Your task to perform on an android device: Show me the alarms in the clock app Image 0: 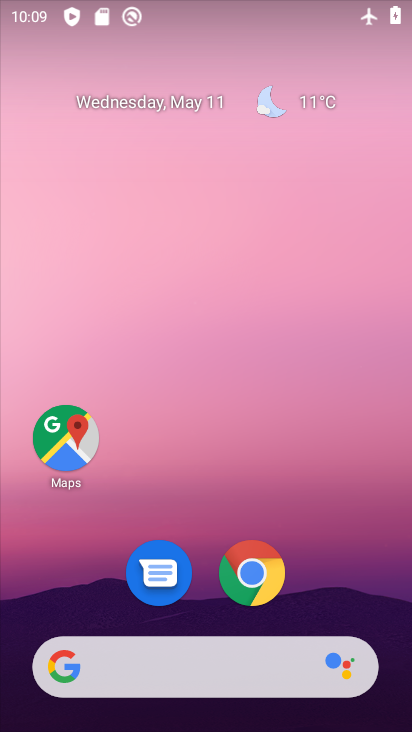
Step 0: drag from (212, 598) to (227, 67)
Your task to perform on an android device: Show me the alarms in the clock app Image 1: 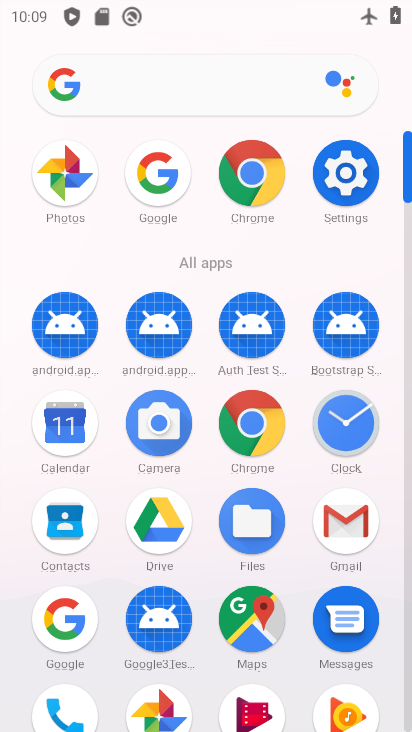
Step 1: click (348, 406)
Your task to perform on an android device: Show me the alarms in the clock app Image 2: 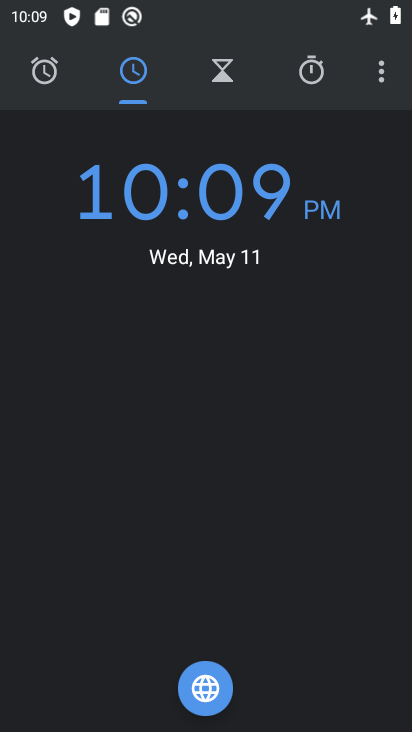
Step 2: click (53, 76)
Your task to perform on an android device: Show me the alarms in the clock app Image 3: 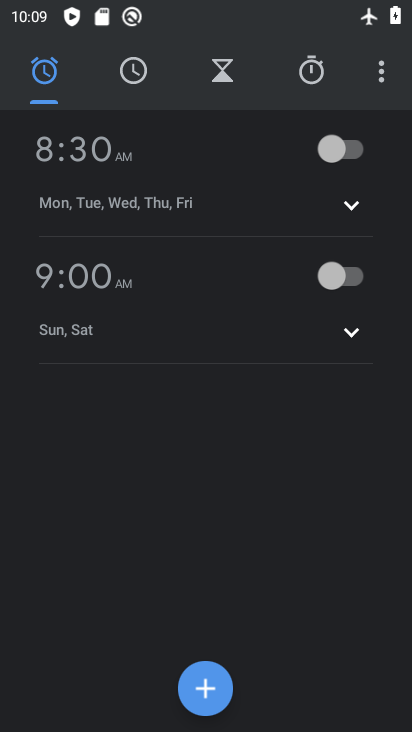
Step 3: task complete